Your task to perform on an android device: change timer sound Image 0: 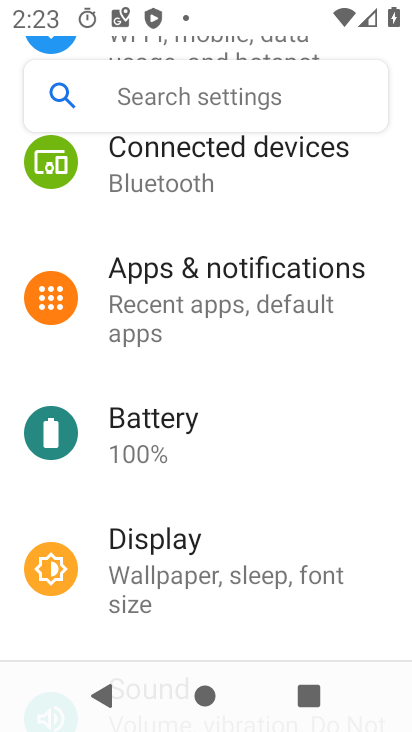
Step 0: press home button
Your task to perform on an android device: change timer sound Image 1: 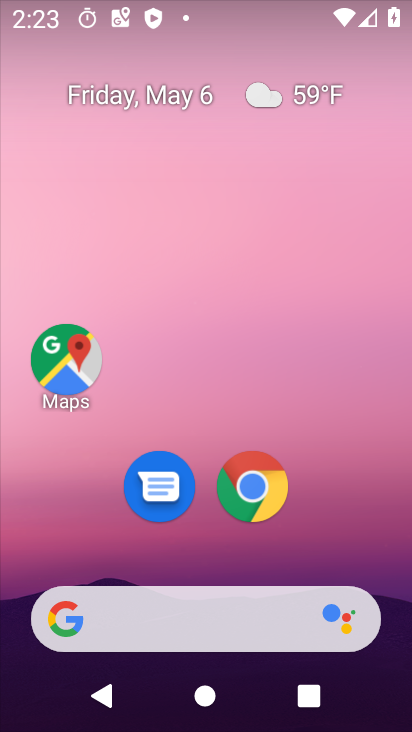
Step 1: drag from (332, 517) to (321, 58)
Your task to perform on an android device: change timer sound Image 2: 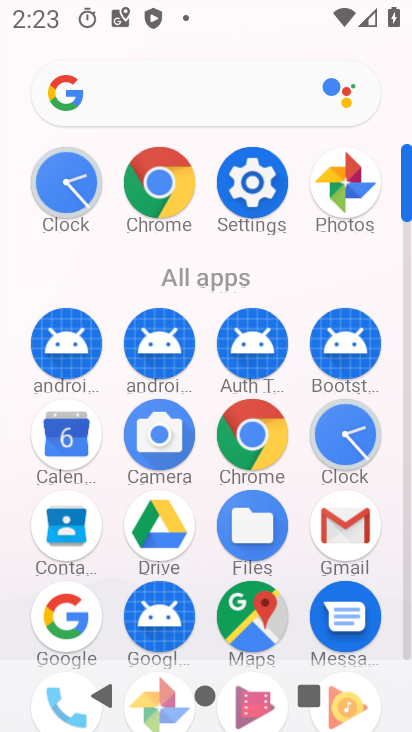
Step 2: click (356, 435)
Your task to perform on an android device: change timer sound Image 3: 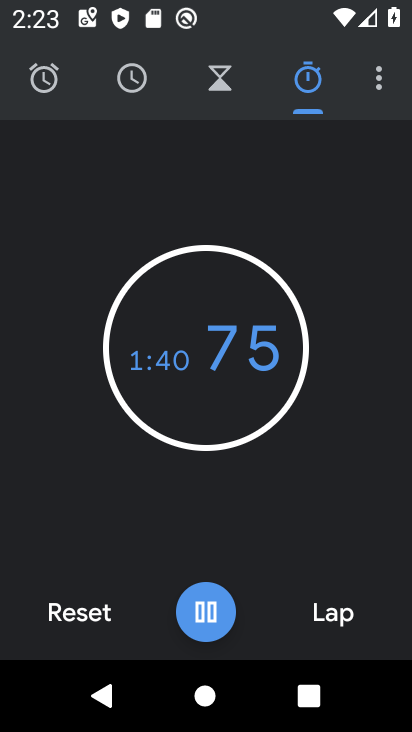
Step 3: click (210, 612)
Your task to perform on an android device: change timer sound Image 4: 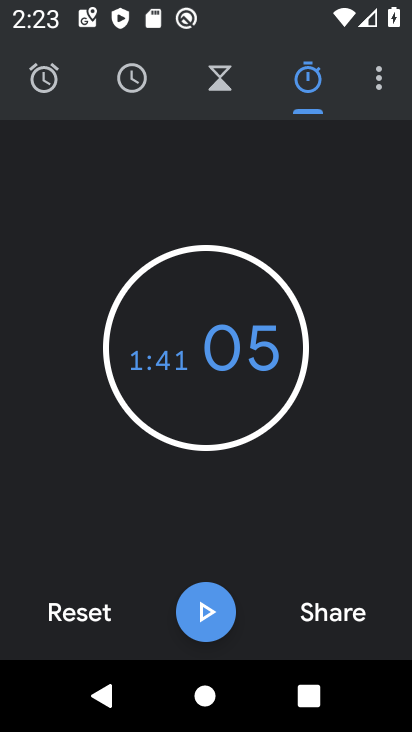
Step 4: click (383, 79)
Your task to perform on an android device: change timer sound Image 5: 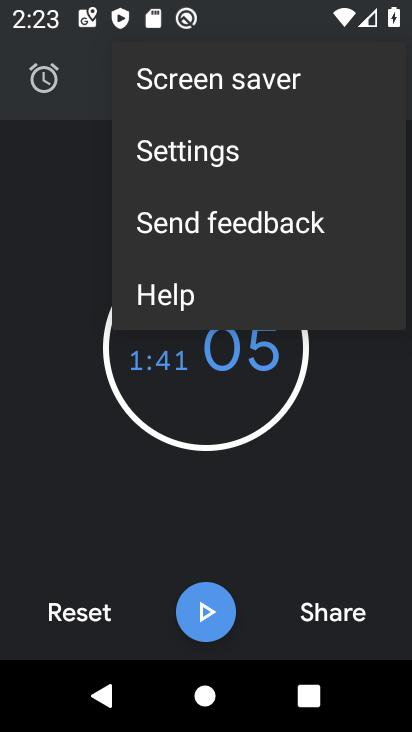
Step 5: click (193, 157)
Your task to perform on an android device: change timer sound Image 6: 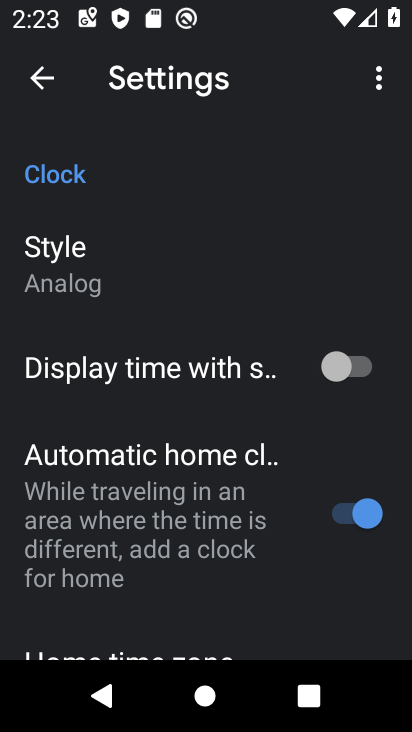
Step 6: drag from (195, 452) to (186, 55)
Your task to perform on an android device: change timer sound Image 7: 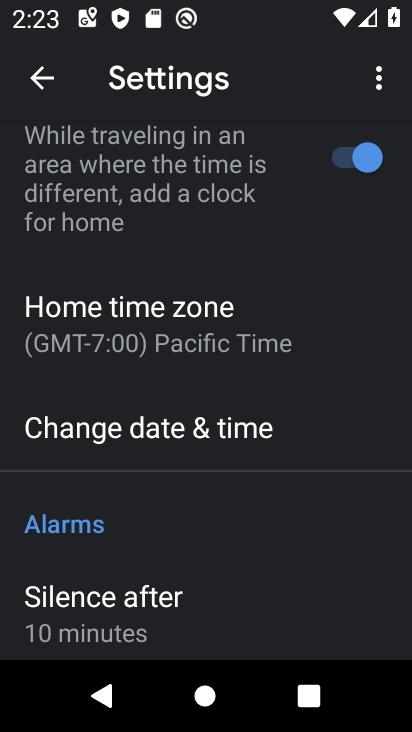
Step 7: drag from (195, 555) to (181, 197)
Your task to perform on an android device: change timer sound Image 8: 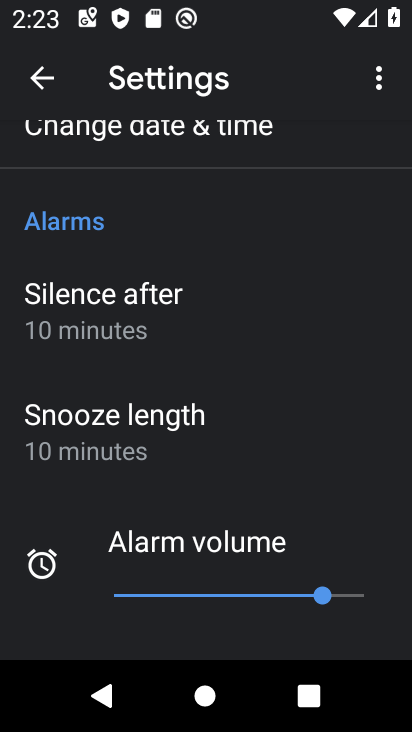
Step 8: drag from (216, 475) to (219, 129)
Your task to perform on an android device: change timer sound Image 9: 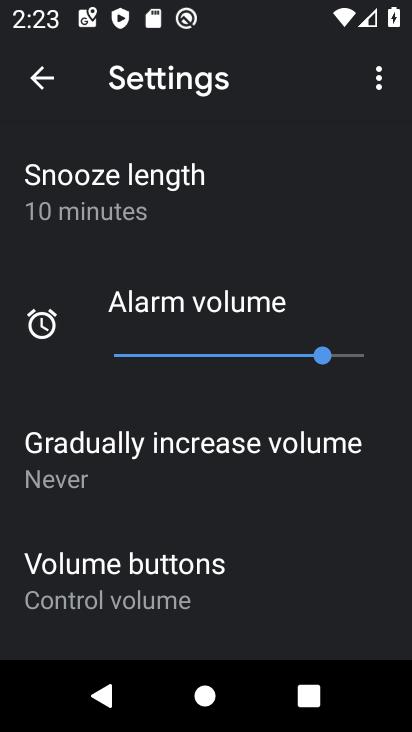
Step 9: drag from (201, 467) to (192, 131)
Your task to perform on an android device: change timer sound Image 10: 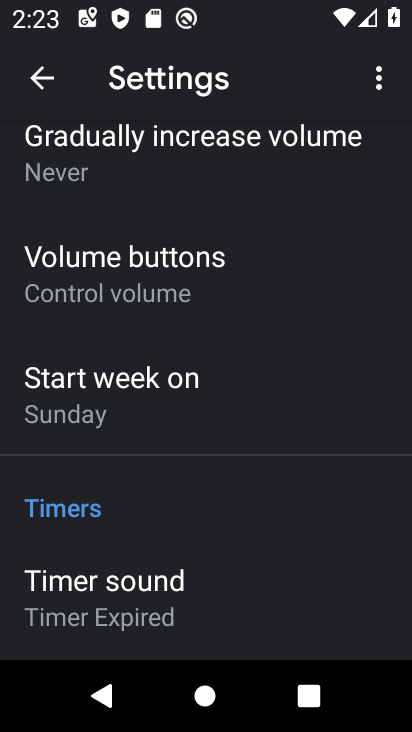
Step 10: drag from (150, 515) to (122, 344)
Your task to perform on an android device: change timer sound Image 11: 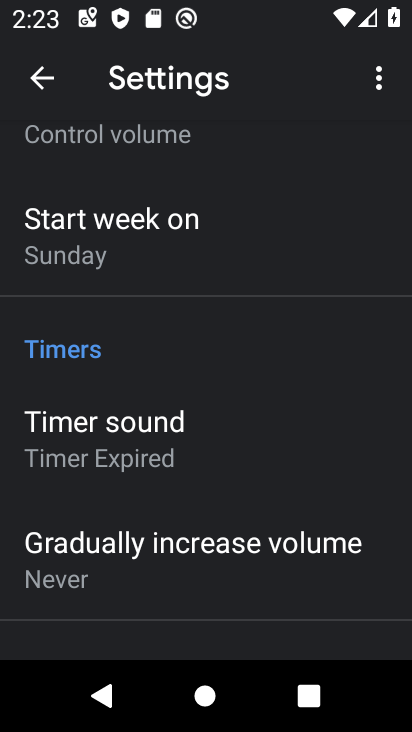
Step 11: click (106, 432)
Your task to perform on an android device: change timer sound Image 12: 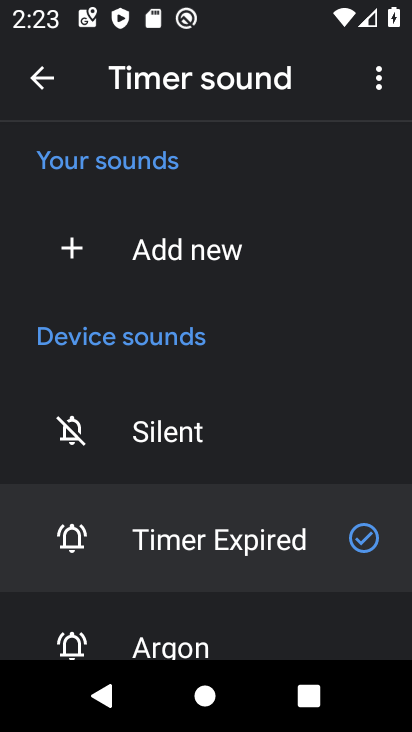
Step 12: click (176, 647)
Your task to perform on an android device: change timer sound Image 13: 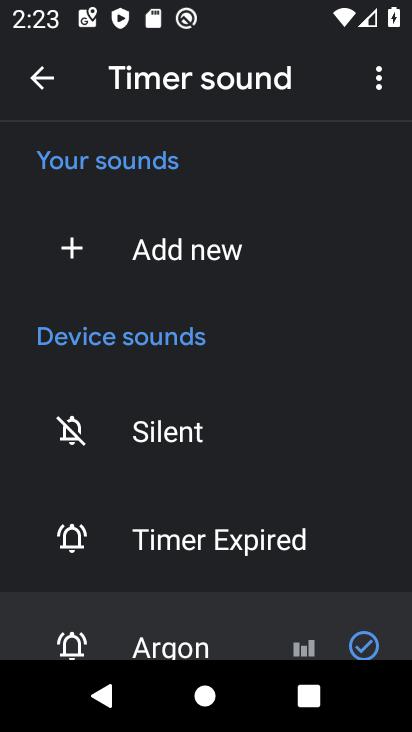
Step 13: task complete